Your task to perform on an android device: Is it going to rain today? Image 0: 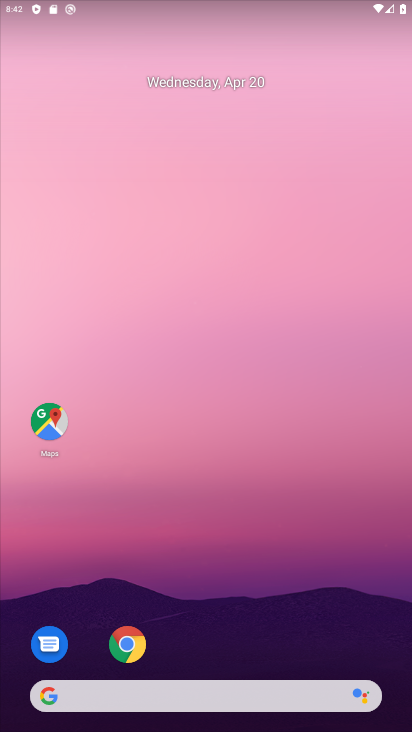
Step 0: drag from (154, 680) to (168, 223)
Your task to perform on an android device: Is it going to rain today? Image 1: 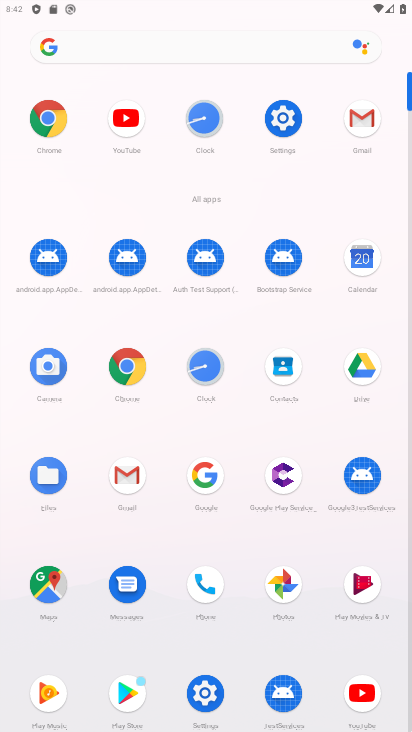
Step 1: click (204, 478)
Your task to perform on an android device: Is it going to rain today? Image 2: 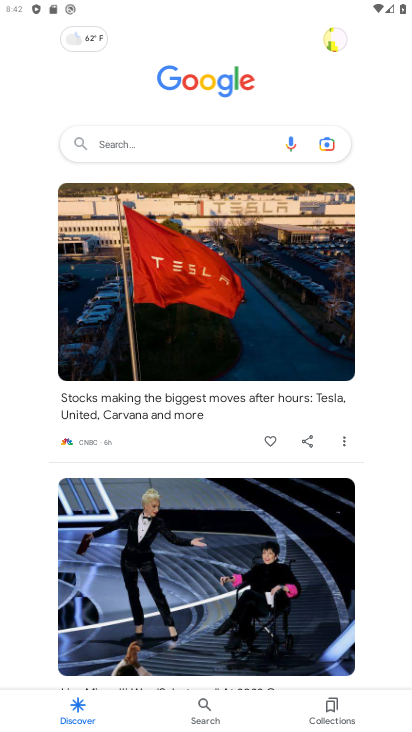
Step 2: click (76, 36)
Your task to perform on an android device: Is it going to rain today? Image 3: 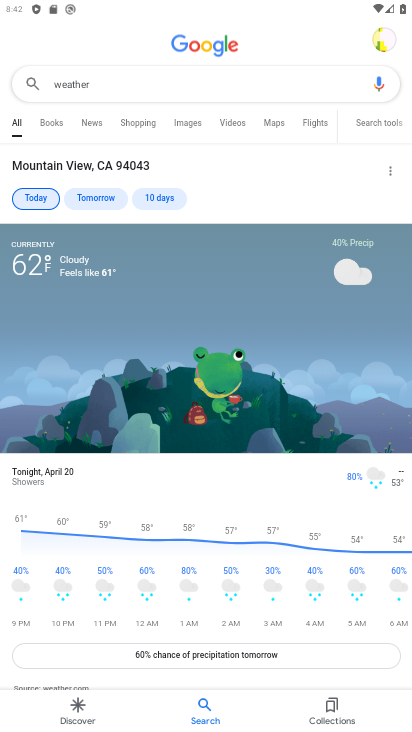
Step 3: task complete